Your task to perform on an android device: Clear the cart on ebay.com. Search for "beats solo 3" on ebay.com, select the first entry, and add it to the cart. Image 0: 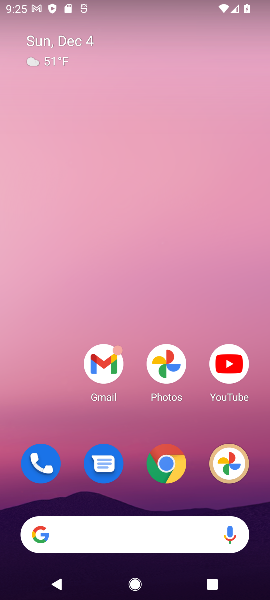
Step 0: click (134, 549)
Your task to perform on an android device: Clear the cart on ebay.com. Search for "beats solo 3" on ebay.com, select the first entry, and add it to the cart. Image 1: 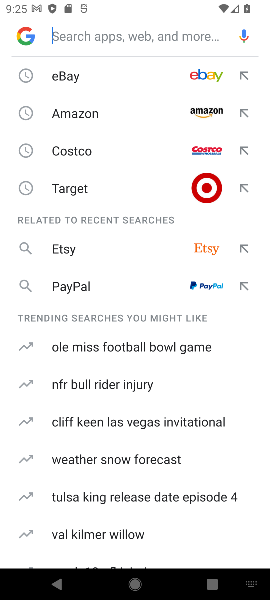
Step 1: click (92, 49)
Your task to perform on an android device: Clear the cart on ebay.com. Search for "beats solo 3" on ebay.com, select the first entry, and add it to the cart. Image 2: 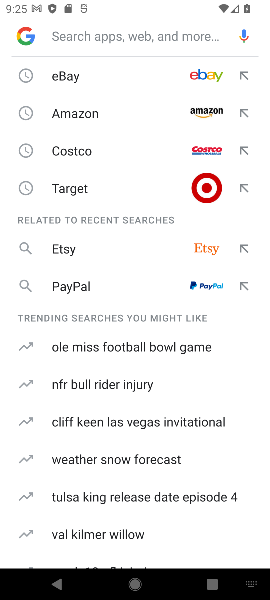
Step 2: click (106, 73)
Your task to perform on an android device: Clear the cart on ebay.com. Search for "beats solo 3" on ebay.com, select the first entry, and add it to the cart. Image 3: 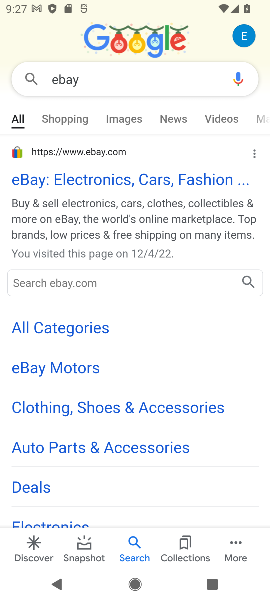
Step 3: click (50, 173)
Your task to perform on an android device: Clear the cart on ebay.com. Search for "beats solo 3" on ebay.com, select the first entry, and add it to the cart. Image 4: 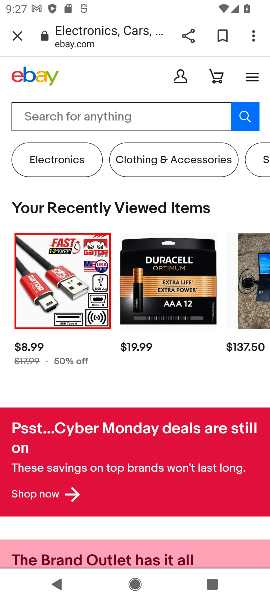
Step 4: task complete